Your task to perform on an android device: turn off translation in the chrome app Image 0: 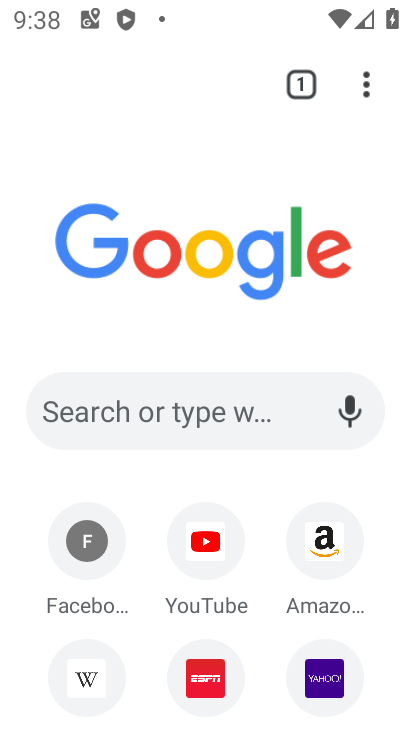
Step 0: drag from (375, 72) to (109, 587)
Your task to perform on an android device: turn off translation in the chrome app Image 1: 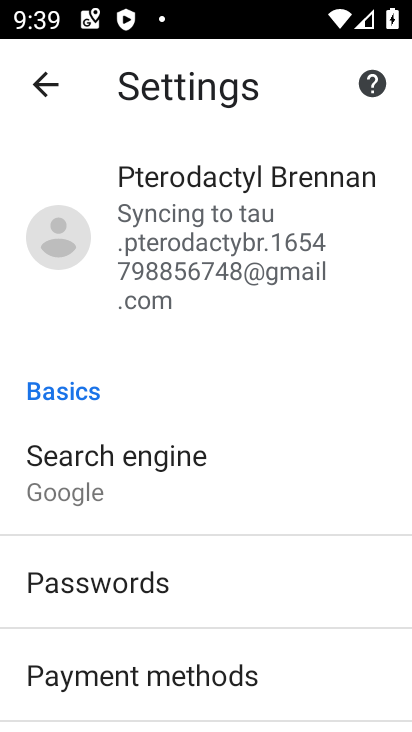
Step 1: drag from (325, 621) to (347, 117)
Your task to perform on an android device: turn off translation in the chrome app Image 2: 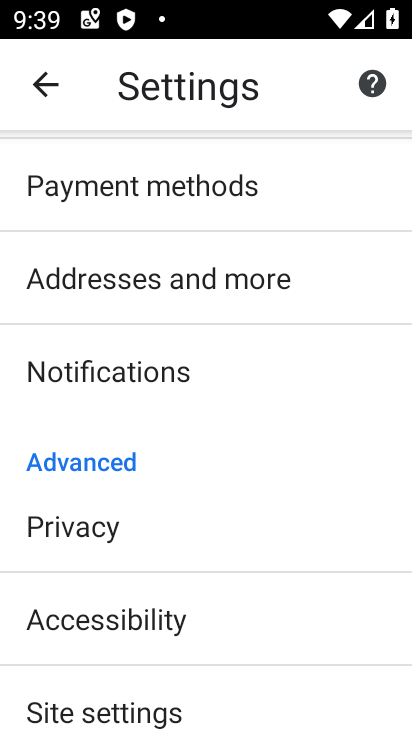
Step 2: drag from (195, 609) to (237, 170)
Your task to perform on an android device: turn off translation in the chrome app Image 3: 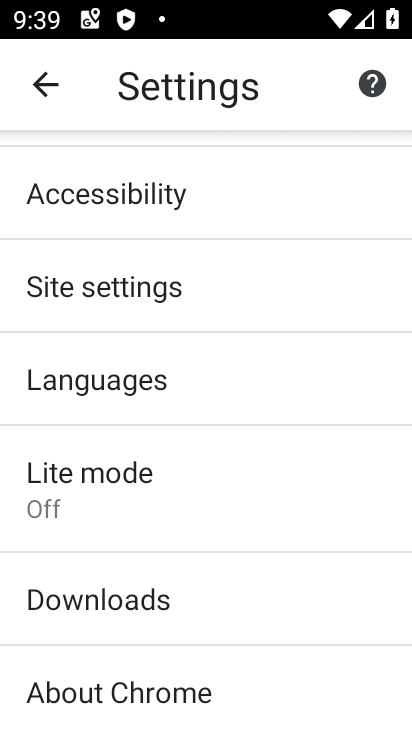
Step 3: click (161, 380)
Your task to perform on an android device: turn off translation in the chrome app Image 4: 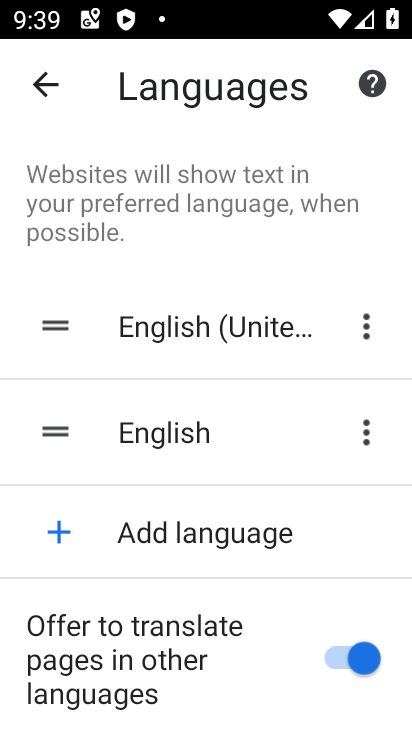
Step 4: click (350, 646)
Your task to perform on an android device: turn off translation in the chrome app Image 5: 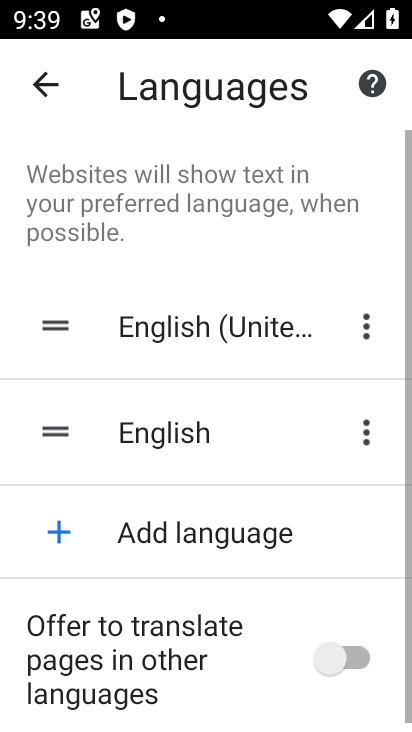
Step 5: task complete